Your task to perform on an android device: Search for pizza restaurants on Maps Image 0: 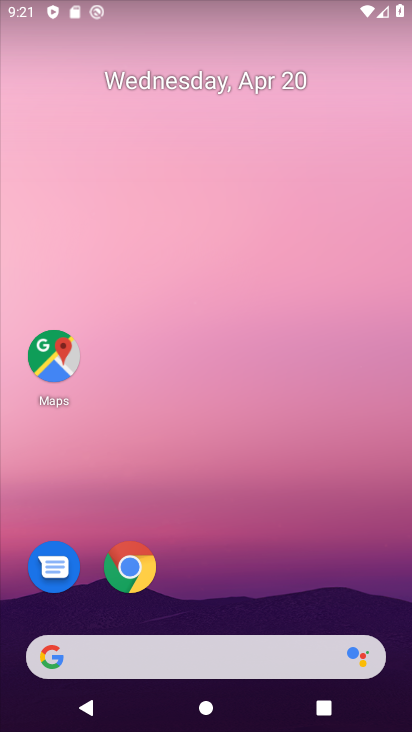
Step 0: click (60, 357)
Your task to perform on an android device: Search for pizza restaurants on Maps Image 1: 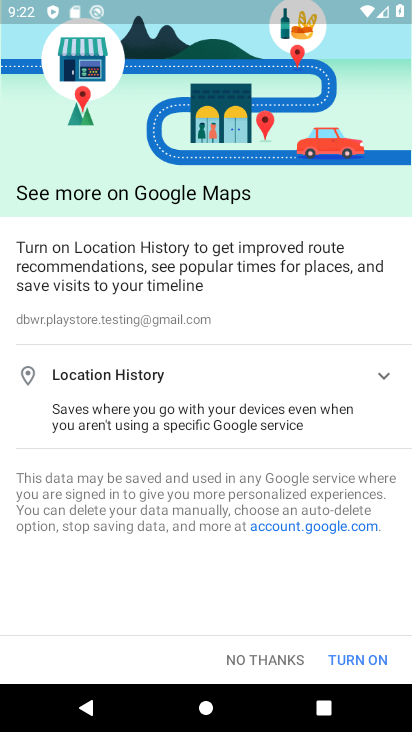
Step 1: click (270, 662)
Your task to perform on an android device: Search for pizza restaurants on Maps Image 2: 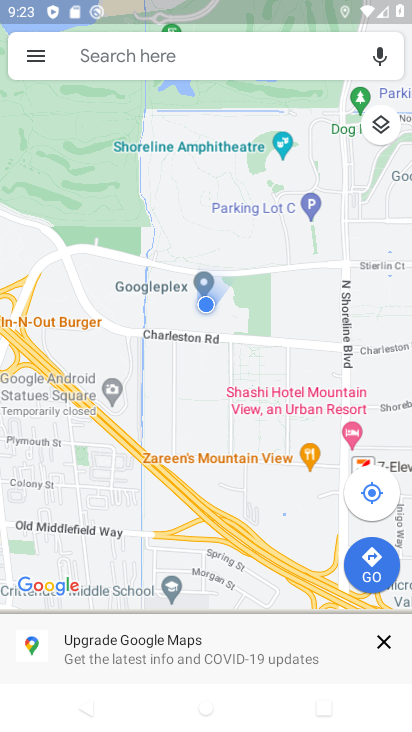
Step 2: click (164, 53)
Your task to perform on an android device: Search for pizza restaurants on Maps Image 3: 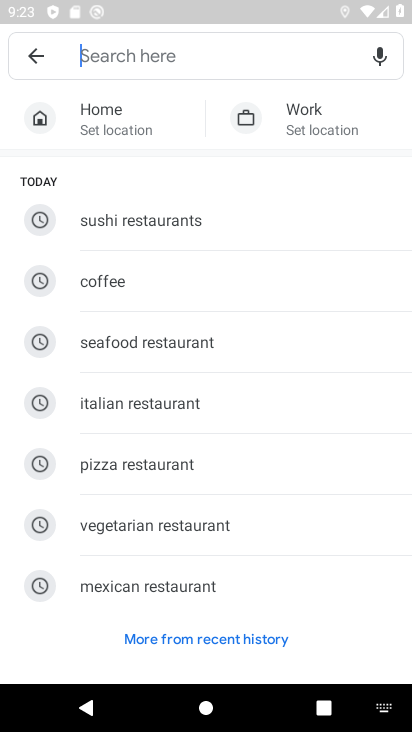
Step 3: click (147, 465)
Your task to perform on an android device: Search for pizza restaurants on Maps Image 4: 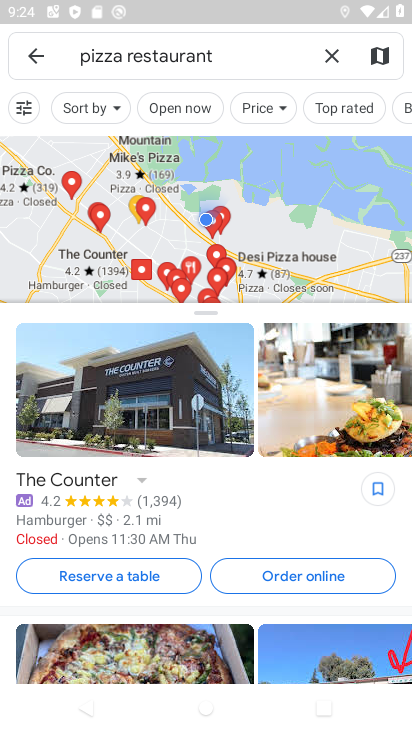
Step 4: task complete